Your task to perform on an android device: turn pop-ups off in chrome Image 0: 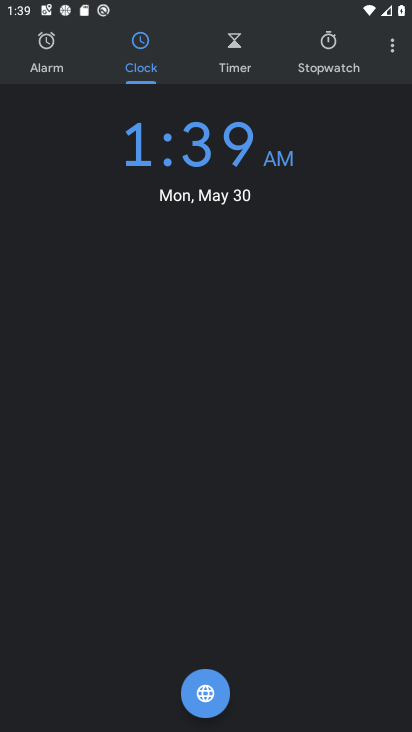
Step 0: press home button
Your task to perform on an android device: turn pop-ups off in chrome Image 1: 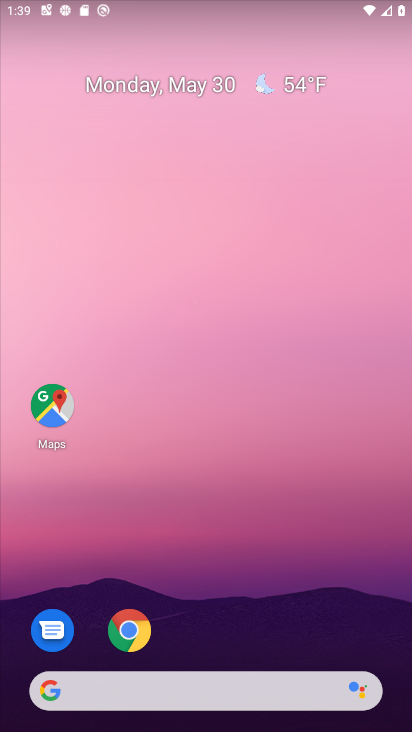
Step 1: click (139, 640)
Your task to perform on an android device: turn pop-ups off in chrome Image 2: 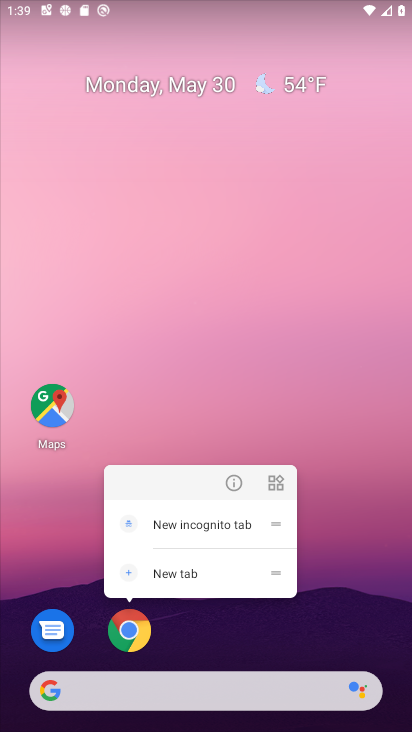
Step 2: click (131, 640)
Your task to perform on an android device: turn pop-ups off in chrome Image 3: 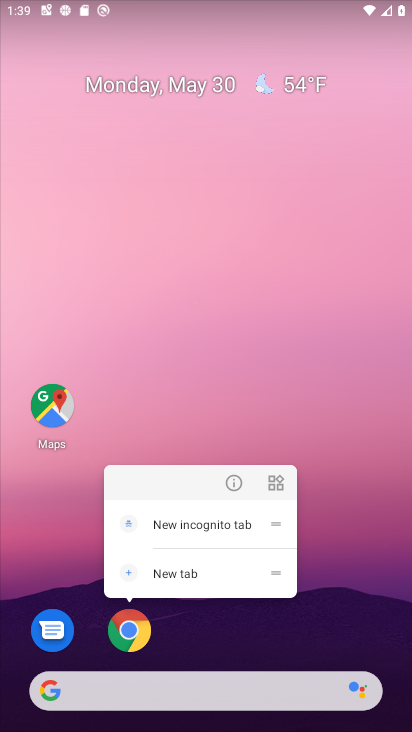
Step 3: click (131, 631)
Your task to perform on an android device: turn pop-ups off in chrome Image 4: 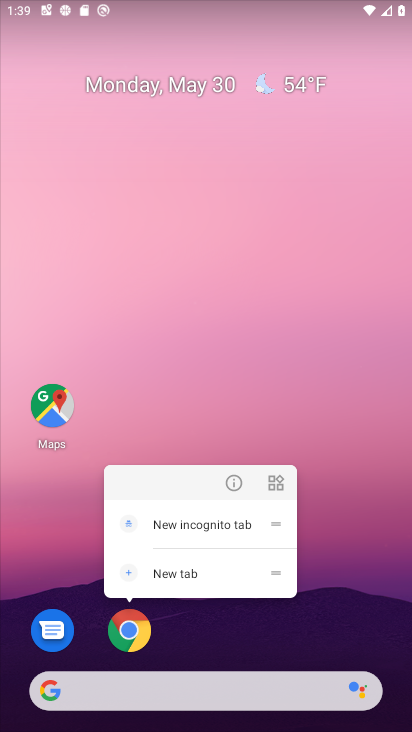
Step 4: click (126, 637)
Your task to perform on an android device: turn pop-ups off in chrome Image 5: 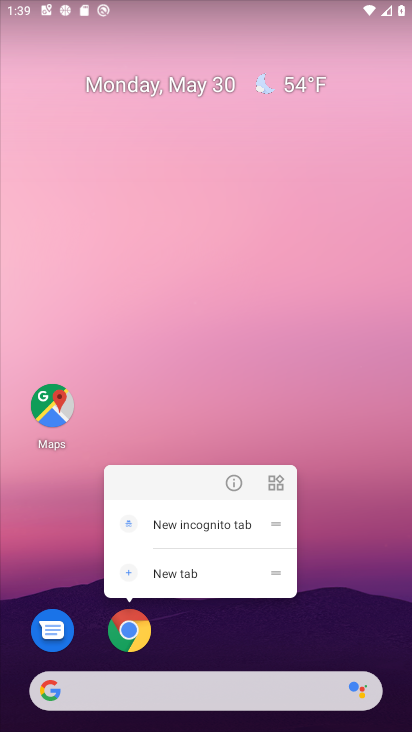
Step 5: click (126, 637)
Your task to perform on an android device: turn pop-ups off in chrome Image 6: 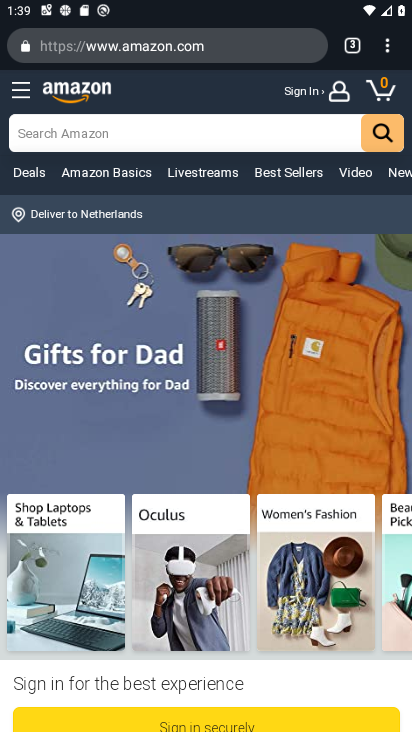
Step 6: drag from (384, 50) to (275, 550)
Your task to perform on an android device: turn pop-ups off in chrome Image 7: 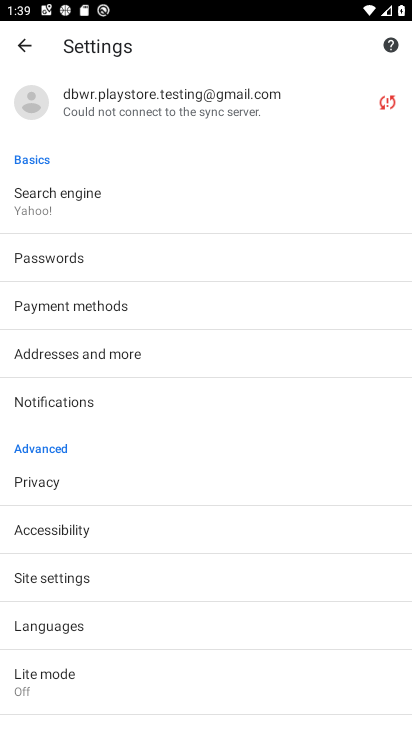
Step 7: click (58, 577)
Your task to perform on an android device: turn pop-ups off in chrome Image 8: 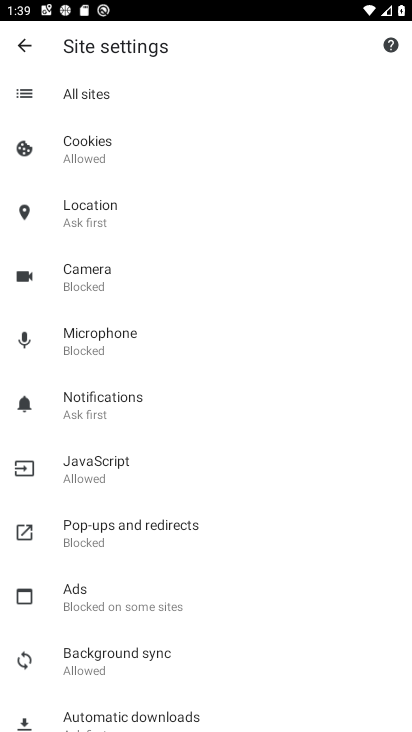
Step 8: click (145, 530)
Your task to perform on an android device: turn pop-ups off in chrome Image 9: 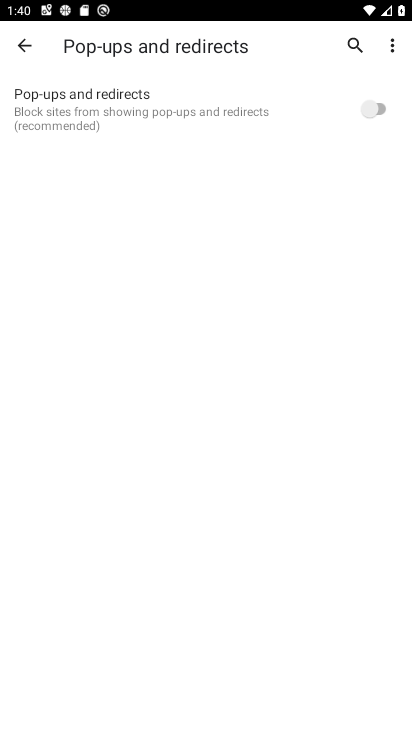
Step 9: task complete